Your task to perform on an android device: toggle improve location accuracy Image 0: 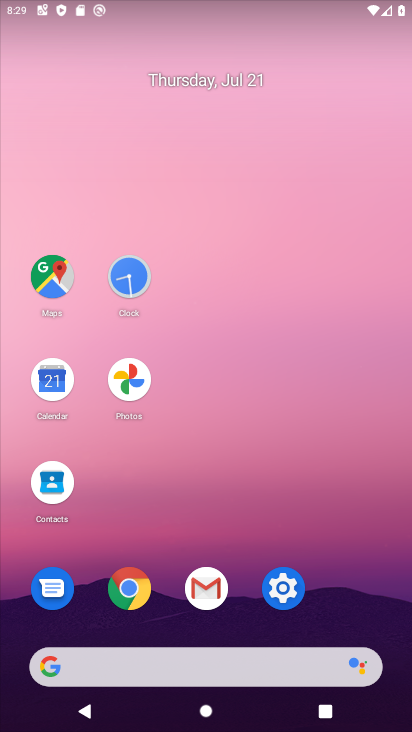
Step 0: click (287, 595)
Your task to perform on an android device: toggle improve location accuracy Image 1: 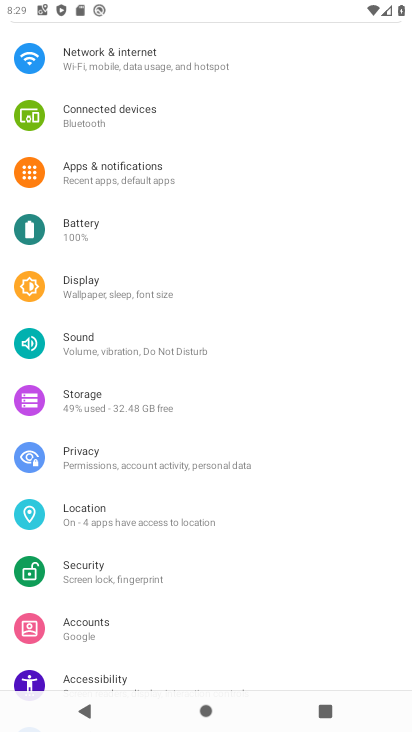
Step 1: click (89, 500)
Your task to perform on an android device: toggle improve location accuracy Image 2: 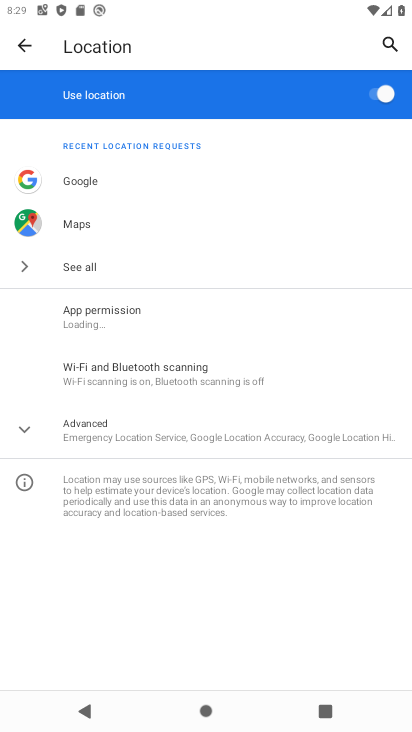
Step 2: click (21, 427)
Your task to perform on an android device: toggle improve location accuracy Image 3: 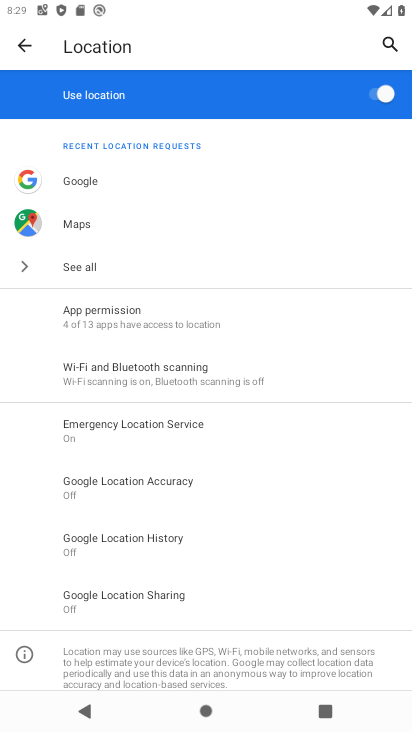
Step 3: click (122, 479)
Your task to perform on an android device: toggle improve location accuracy Image 4: 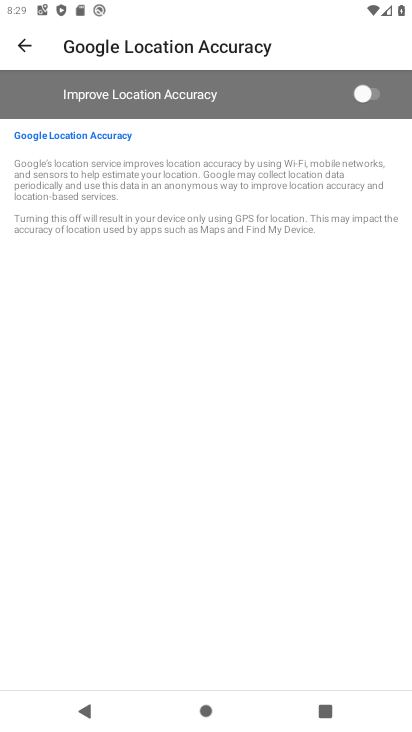
Step 4: click (361, 95)
Your task to perform on an android device: toggle improve location accuracy Image 5: 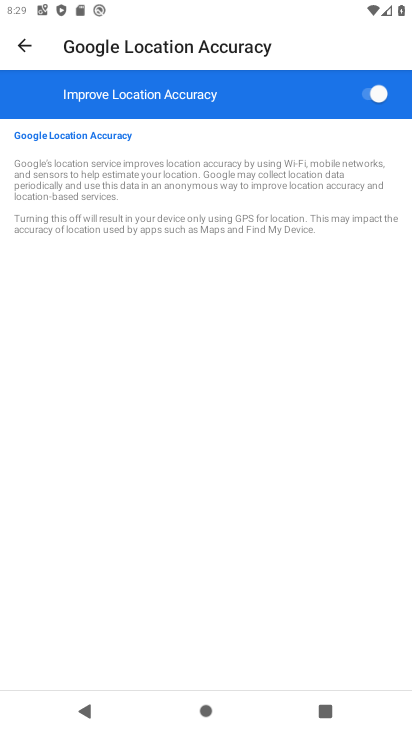
Step 5: task complete